Your task to perform on an android device: Open Amazon Image 0: 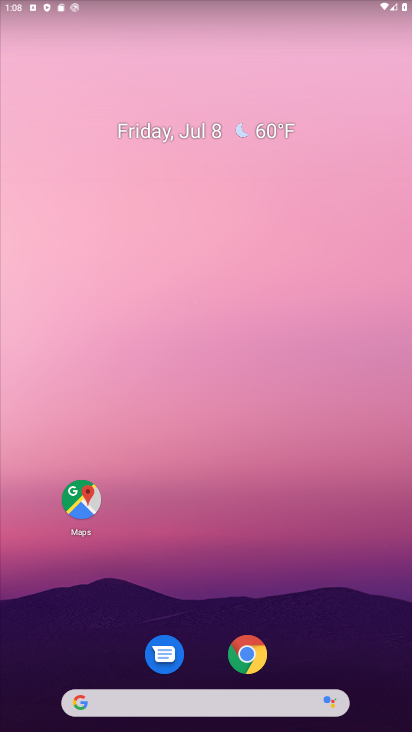
Step 0: click (241, 656)
Your task to perform on an android device: Open Amazon Image 1: 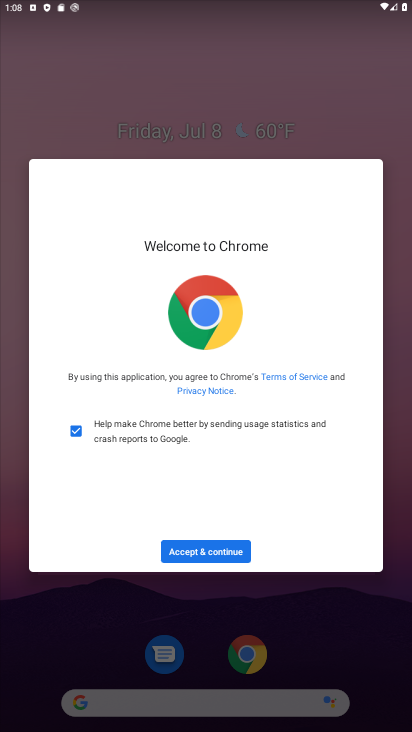
Step 1: click (212, 561)
Your task to perform on an android device: Open Amazon Image 2: 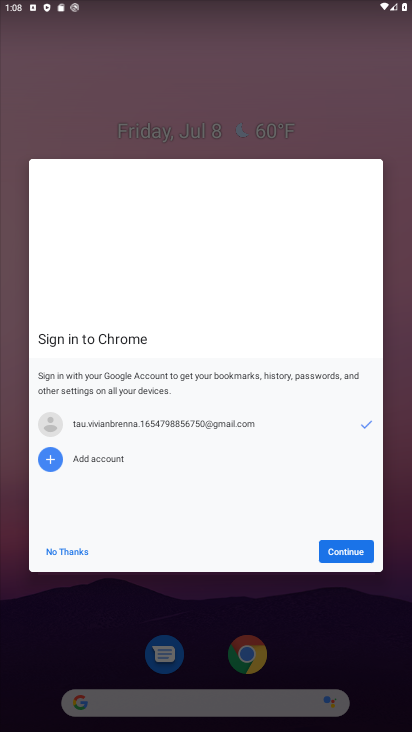
Step 2: click (329, 549)
Your task to perform on an android device: Open Amazon Image 3: 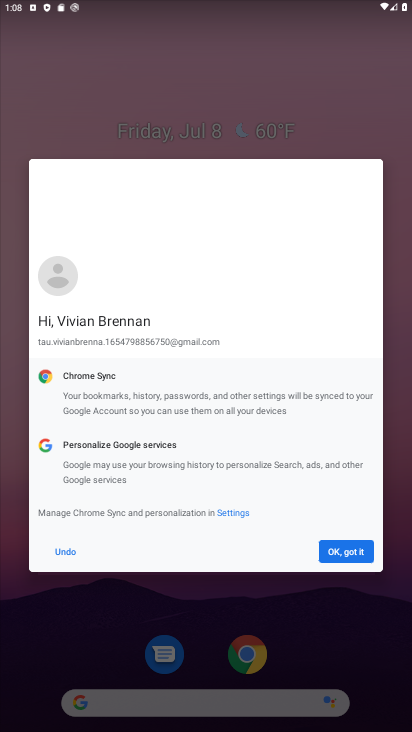
Step 3: click (329, 549)
Your task to perform on an android device: Open Amazon Image 4: 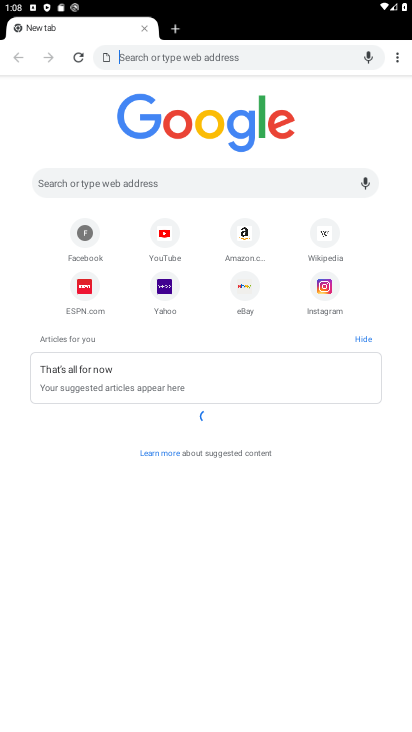
Step 4: click (253, 241)
Your task to perform on an android device: Open Amazon Image 5: 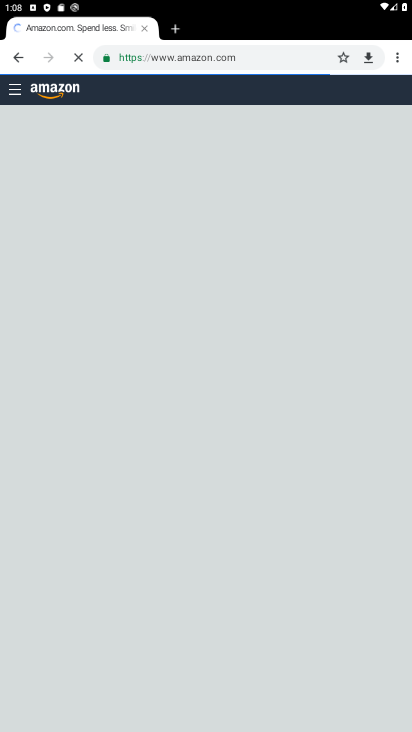
Step 5: task complete